Your task to perform on an android device: What time is it in San Francisco? Image 0: 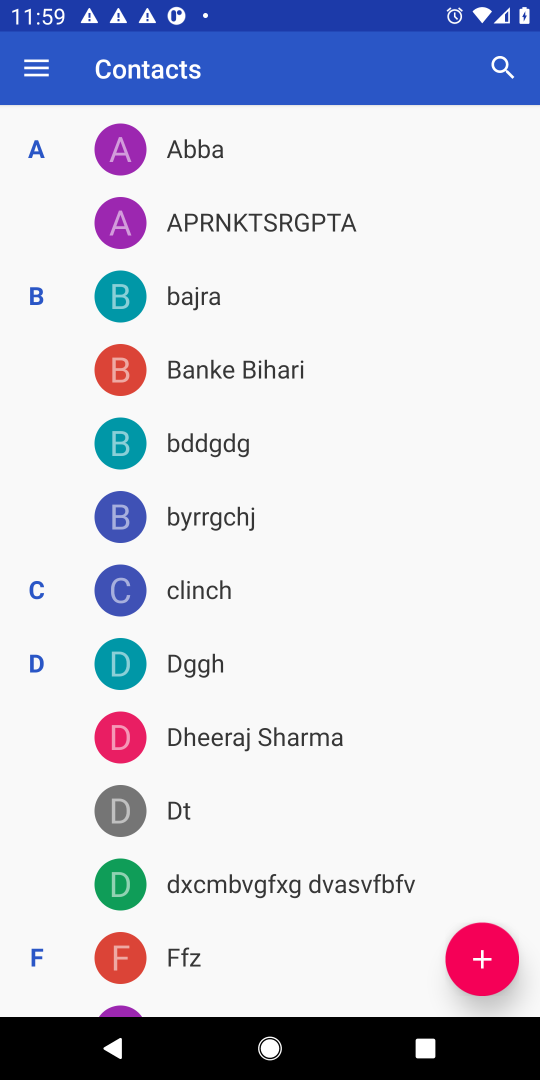
Step 0: press home button
Your task to perform on an android device: What time is it in San Francisco? Image 1: 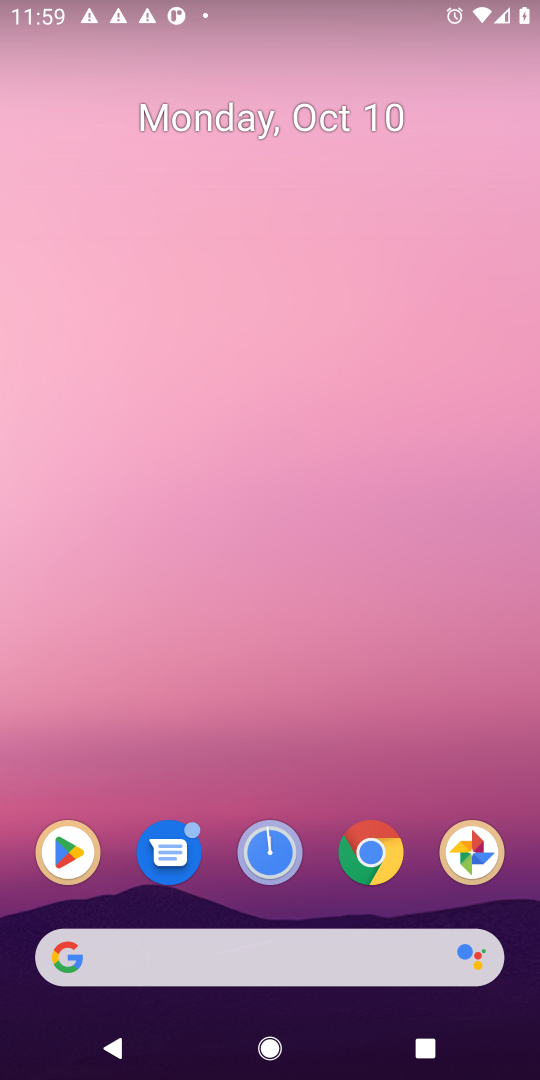
Step 1: click (391, 859)
Your task to perform on an android device: What time is it in San Francisco? Image 2: 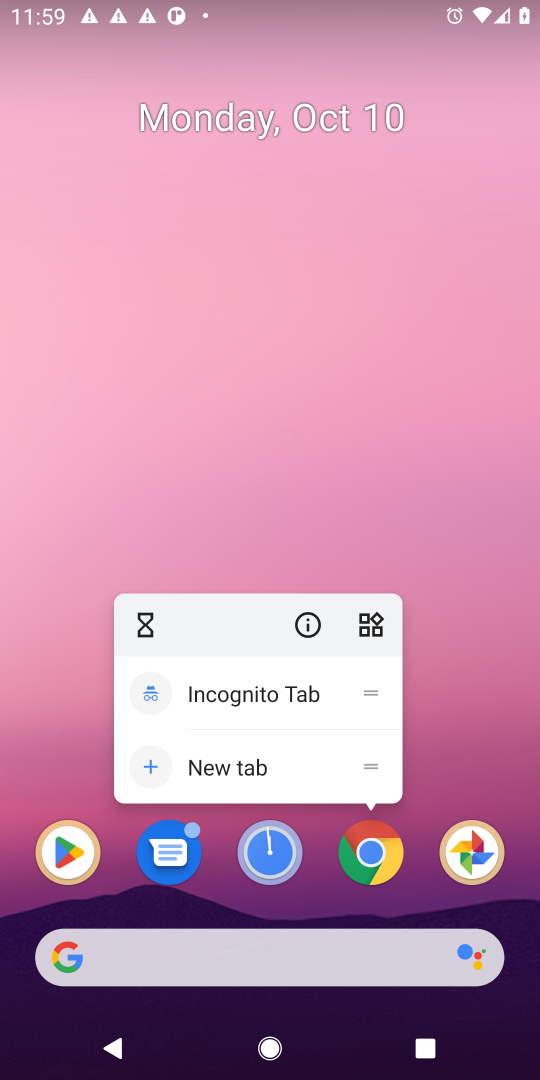
Step 2: click (374, 829)
Your task to perform on an android device: What time is it in San Francisco? Image 3: 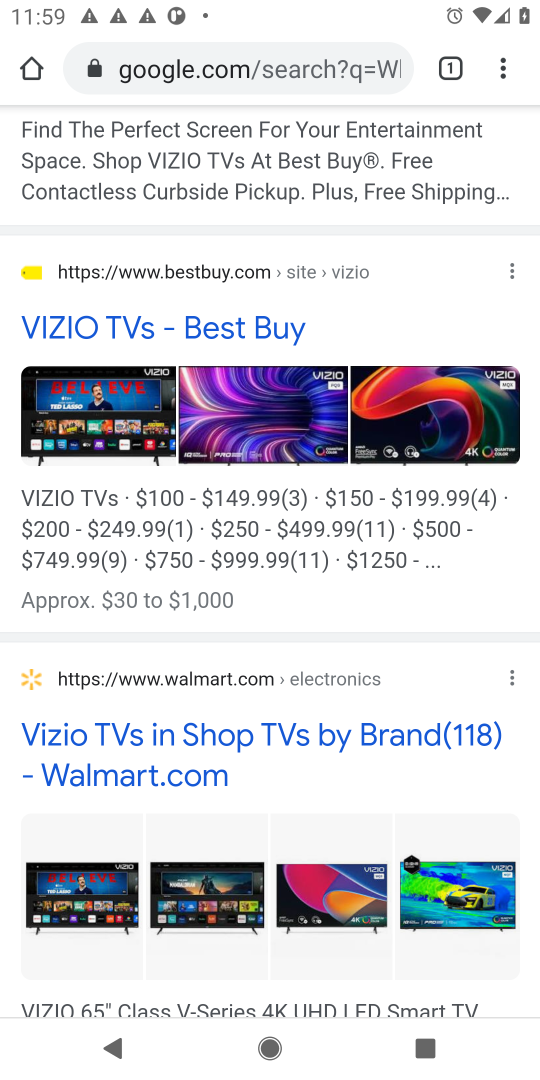
Step 3: click (316, 53)
Your task to perform on an android device: What time is it in San Francisco? Image 4: 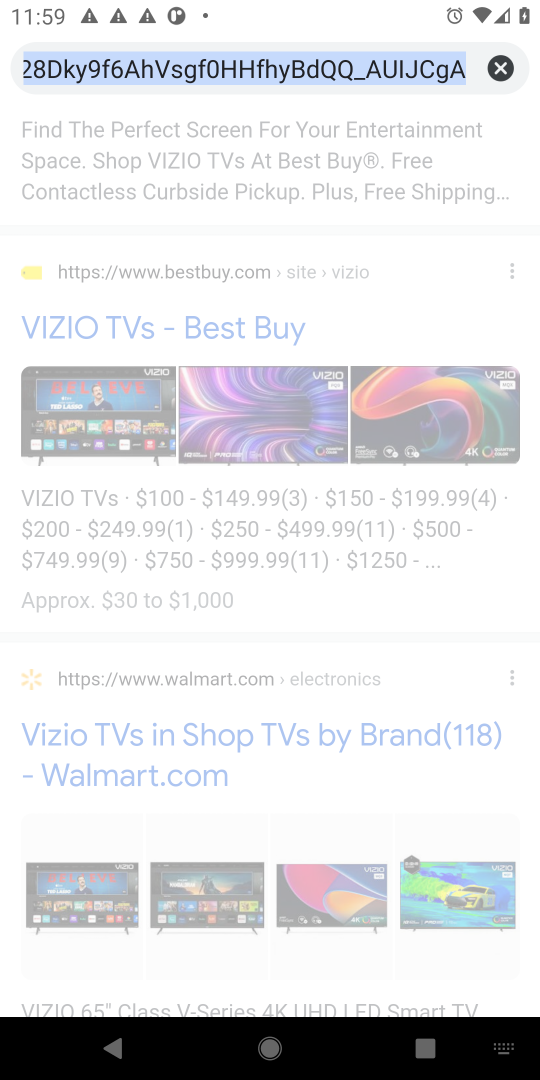
Step 4: type "What time is it in San Francisco?"
Your task to perform on an android device: What time is it in San Francisco? Image 5: 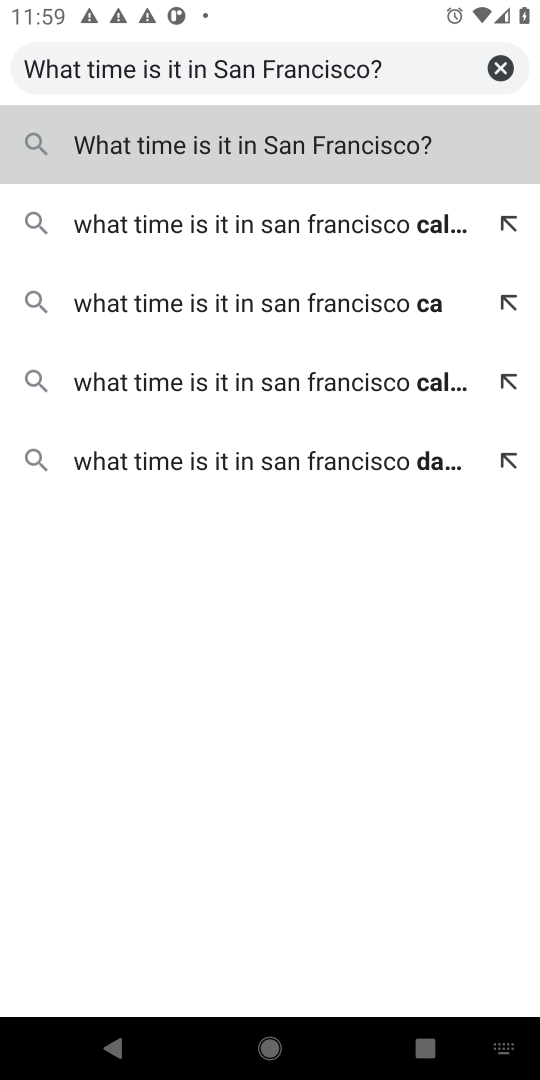
Step 5: click (366, 126)
Your task to perform on an android device: What time is it in San Francisco? Image 6: 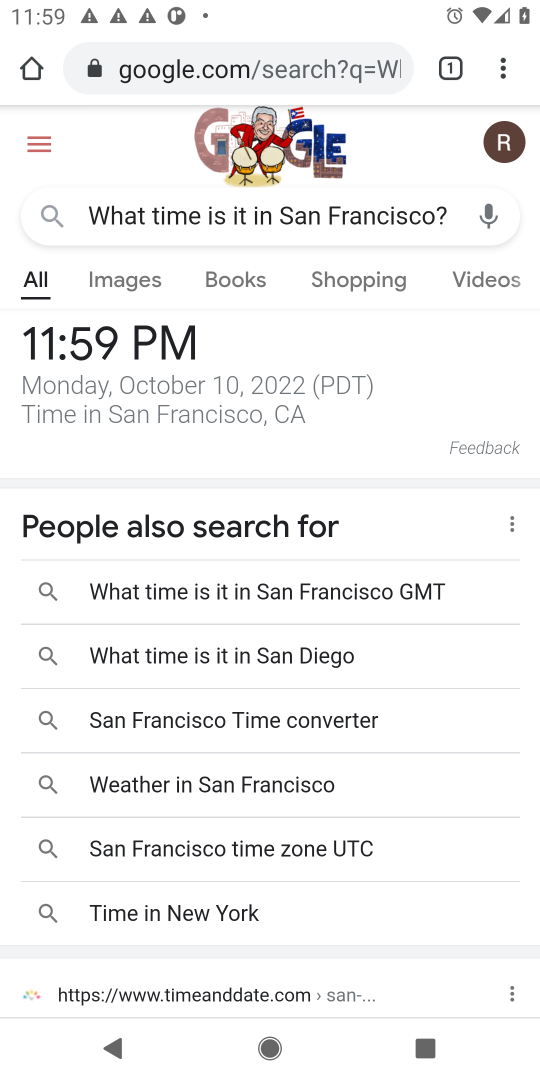
Step 6: task complete